Your task to perform on an android device: Open the Play Movies app and select the watchlist tab. Image 0: 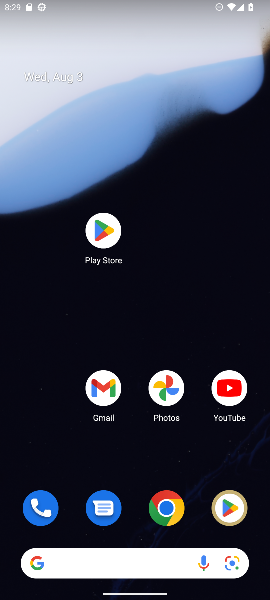
Step 0: drag from (154, 540) to (82, 53)
Your task to perform on an android device: Open the Play Movies app and select the watchlist tab. Image 1: 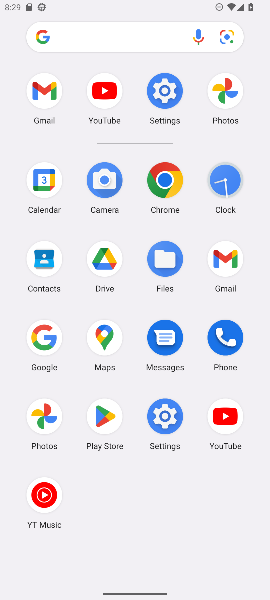
Step 1: task complete